Your task to perform on an android device: turn vacation reply on in the gmail app Image 0: 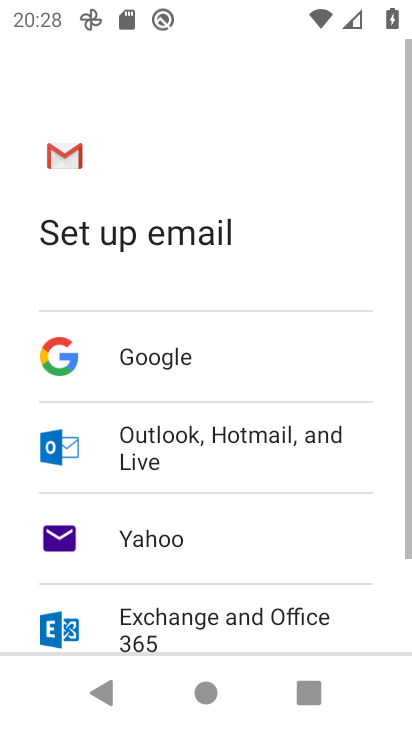
Step 0: press home button
Your task to perform on an android device: turn vacation reply on in the gmail app Image 1: 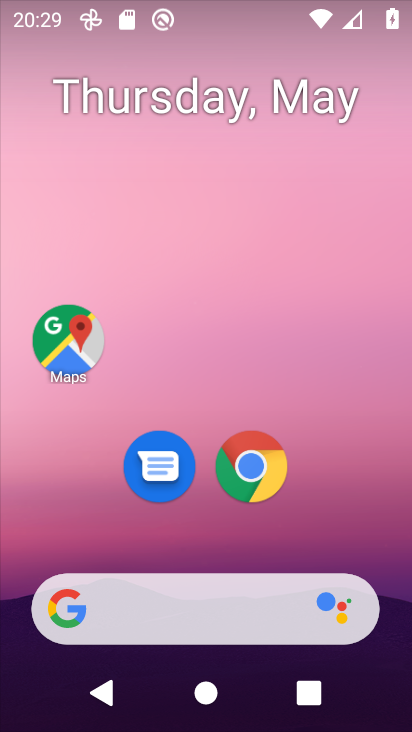
Step 1: drag from (398, 496) to (138, 35)
Your task to perform on an android device: turn vacation reply on in the gmail app Image 2: 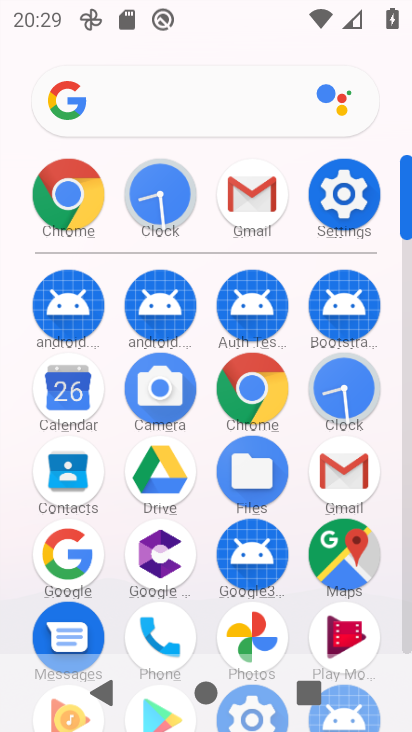
Step 2: click (237, 257)
Your task to perform on an android device: turn vacation reply on in the gmail app Image 3: 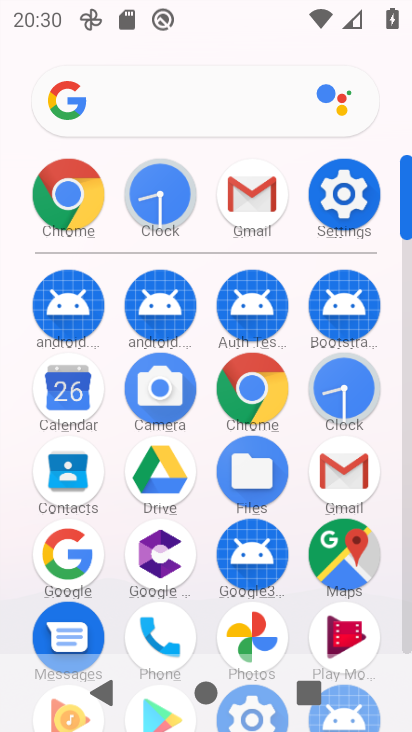
Step 3: task complete